Your task to perform on an android device: see sites visited before in the chrome app Image 0: 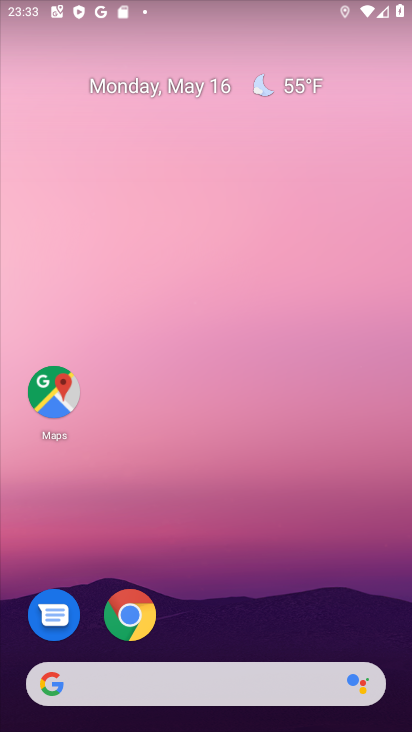
Step 0: click (116, 611)
Your task to perform on an android device: see sites visited before in the chrome app Image 1: 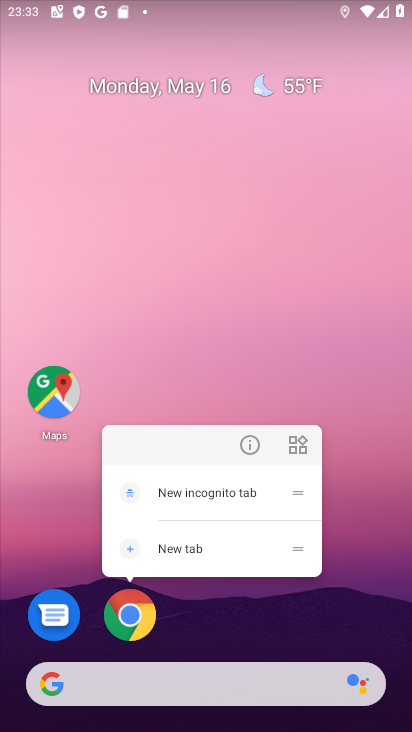
Step 1: click (127, 632)
Your task to perform on an android device: see sites visited before in the chrome app Image 2: 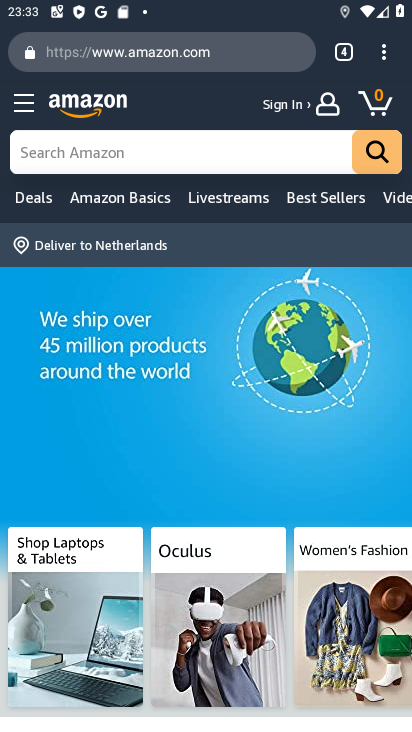
Step 2: click (384, 58)
Your task to perform on an android device: see sites visited before in the chrome app Image 3: 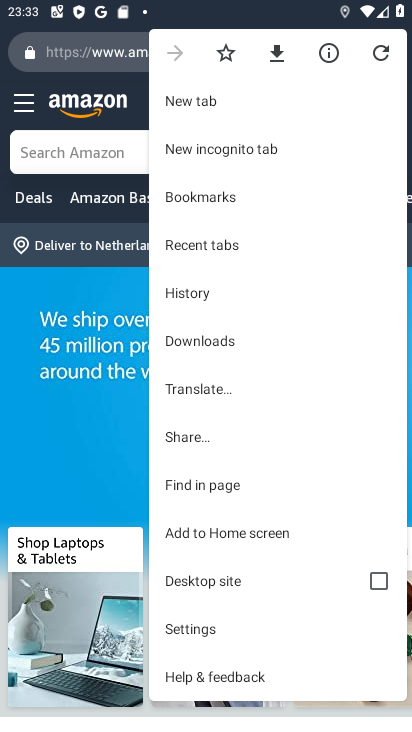
Step 3: click (205, 274)
Your task to perform on an android device: see sites visited before in the chrome app Image 4: 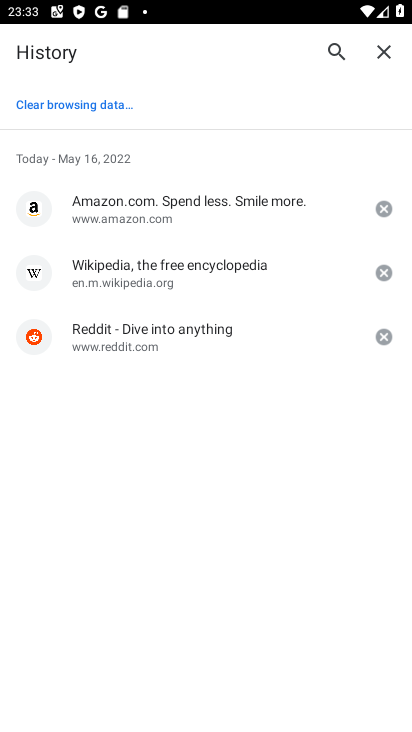
Step 4: click (377, 51)
Your task to perform on an android device: see sites visited before in the chrome app Image 5: 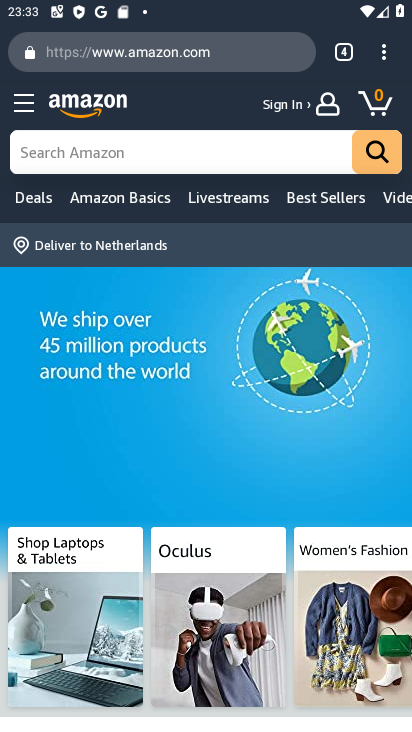
Step 5: click (352, 63)
Your task to perform on an android device: see sites visited before in the chrome app Image 6: 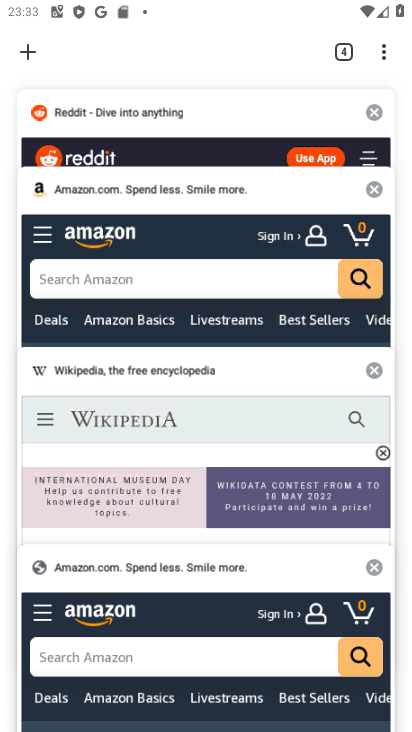
Step 6: task complete